Your task to perform on an android device: toggle data saver in the chrome app Image 0: 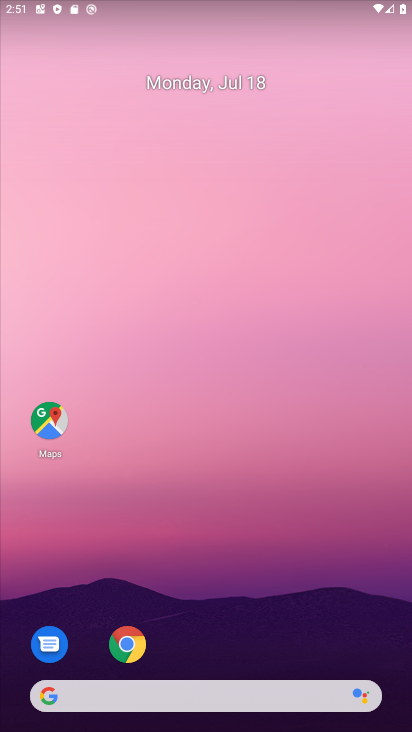
Step 0: click (123, 647)
Your task to perform on an android device: toggle data saver in the chrome app Image 1: 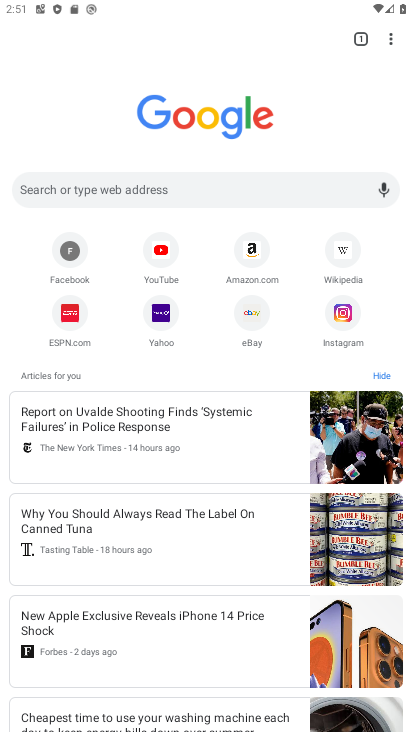
Step 1: click (398, 34)
Your task to perform on an android device: toggle data saver in the chrome app Image 2: 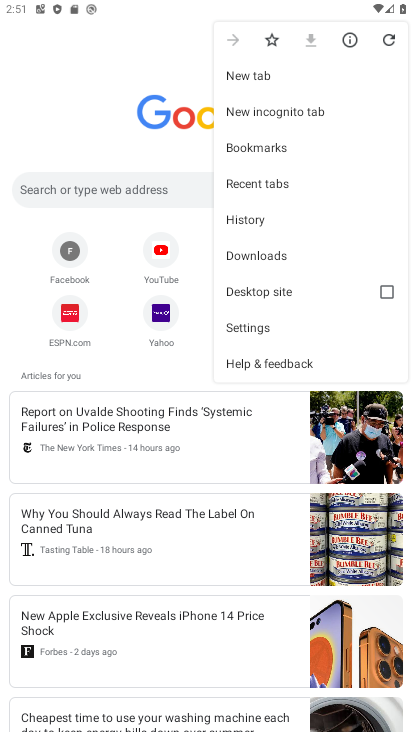
Step 2: click (273, 327)
Your task to perform on an android device: toggle data saver in the chrome app Image 3: 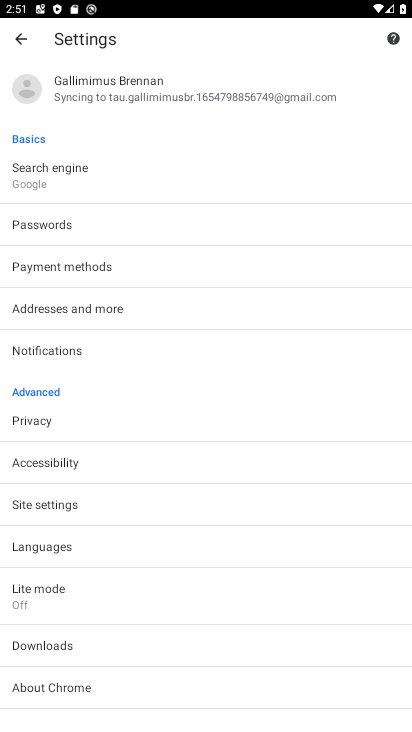
Step 3: click (121, 607)
Your task to perform on an android device: toggle data saver in the chrome app Image 4: 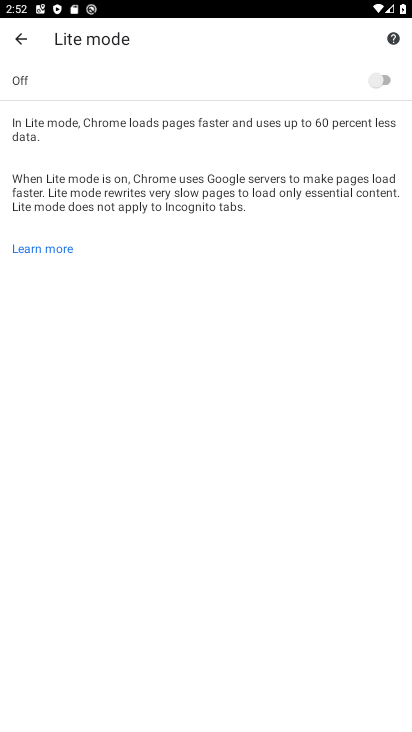
Step 4: click (386, 84)
Your task to perform on an android device: toggle data saver in the chrome app Image 5: 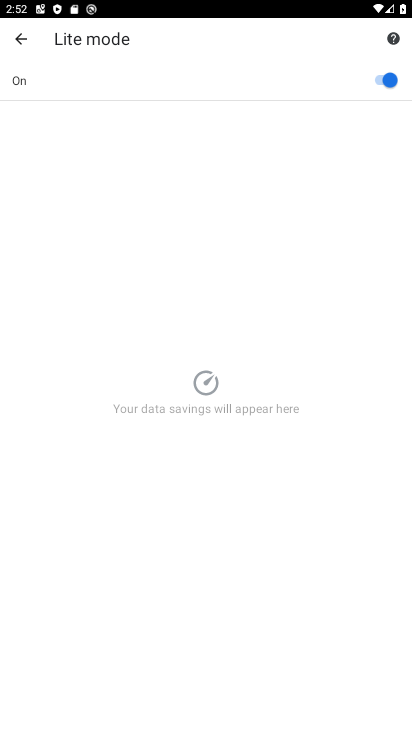
Step 5: task complete